Your task to perform on an android device: open a new tab in the chrome app Image 0: 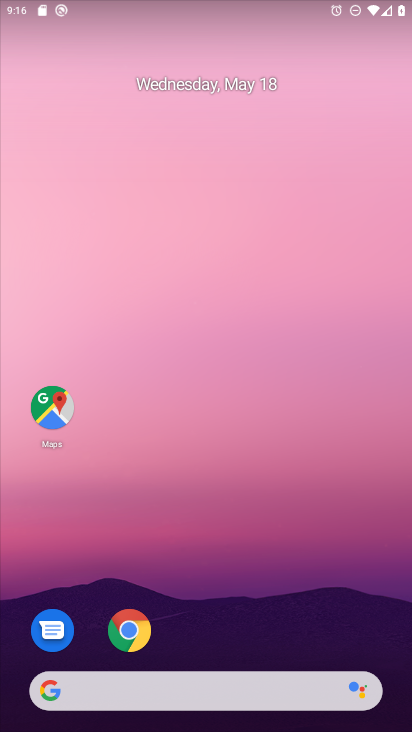
Step 0: click (117, 636)
Your task to perform on an android device: open a new tab in the chrome app Image 1: 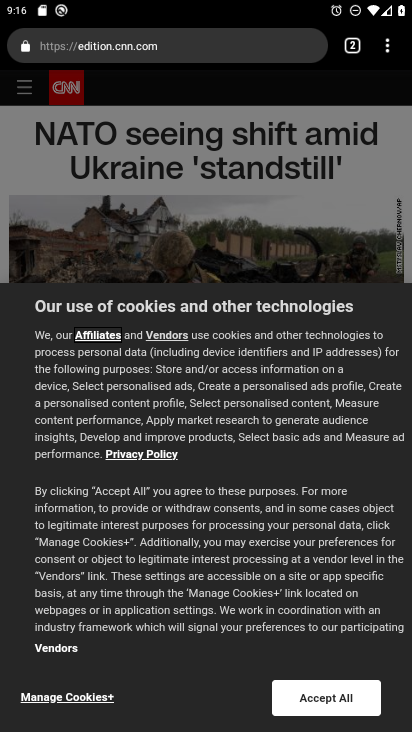
Step 1: click (334, 693)
Your task to perform on an android device: open a new tab in the chrome app Image 2: 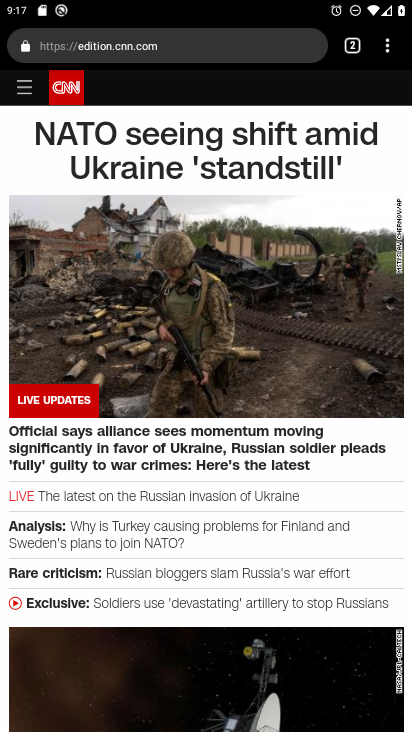
Step 2: click (340, 40)
Your task to perform on an android device: open a new tab in the chrome app Image 3: 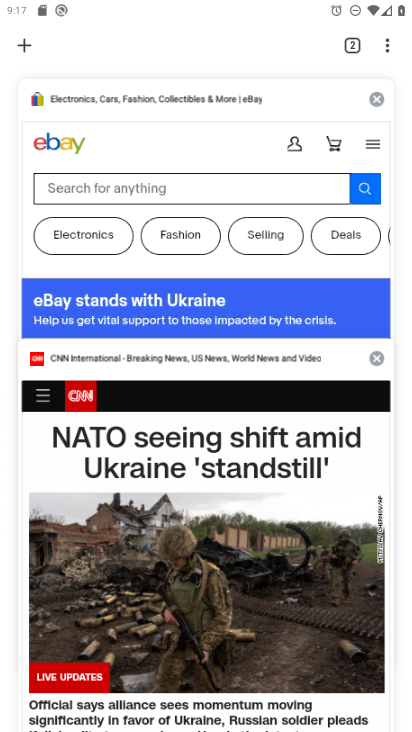
Step 3: click (26, 39)
Your task to perform on an android device: open a new tab in the chrome app Image 4: 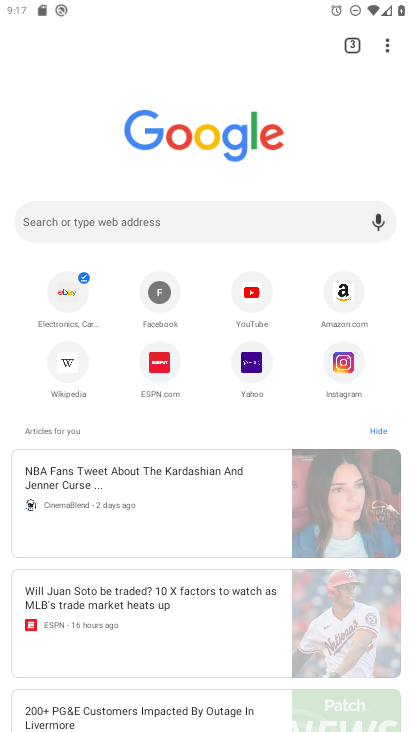
Step 4: task complete